Your task to perform on an android device: add a label to a message in the gmail app Image 0: 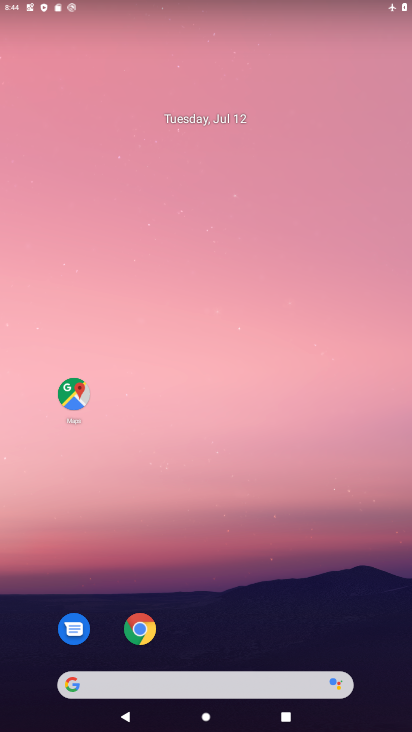
Step 0: drag from (293, 622) to (255, 284)
Your task to perform on an android device: add a label to a message in the gmail app Image 1: 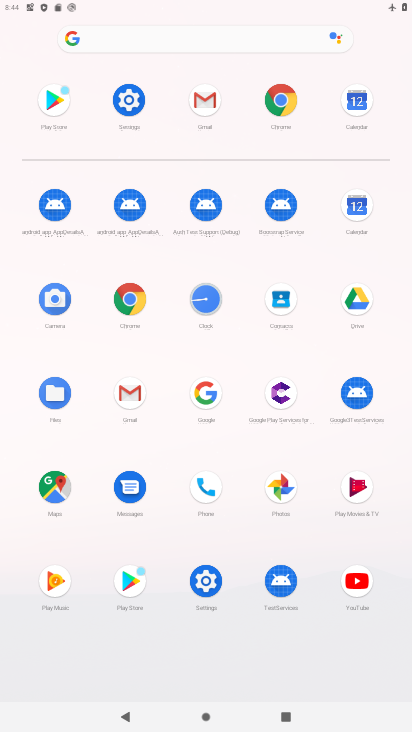
Step 1: click (205, 95)
Your task to perform on an android device: add a label to a message in the gmail app Image 2: 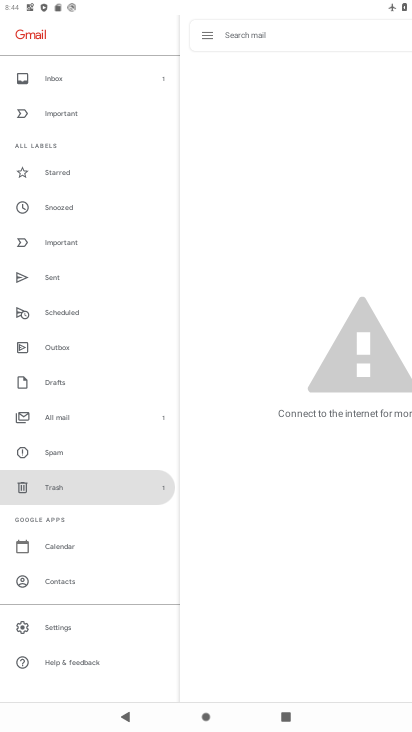
Step 2: click (73, 421)
Your task to perform on an android device: add a label to a message in the gmail app Image 3: 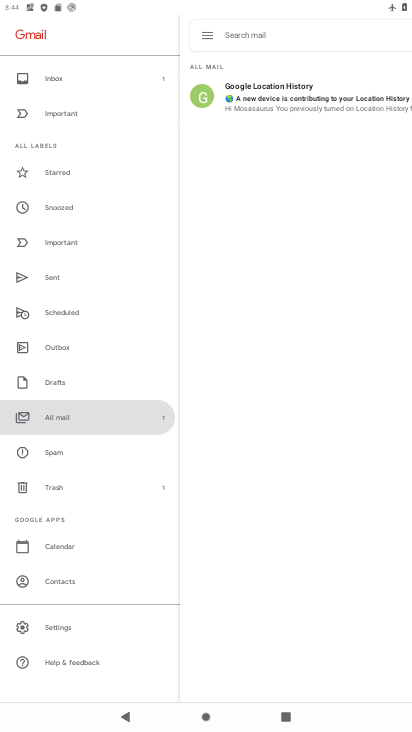
Step 3: click (269, 88)
Your task to perform on an android device: add a label to a message in the gmail app Image 4: 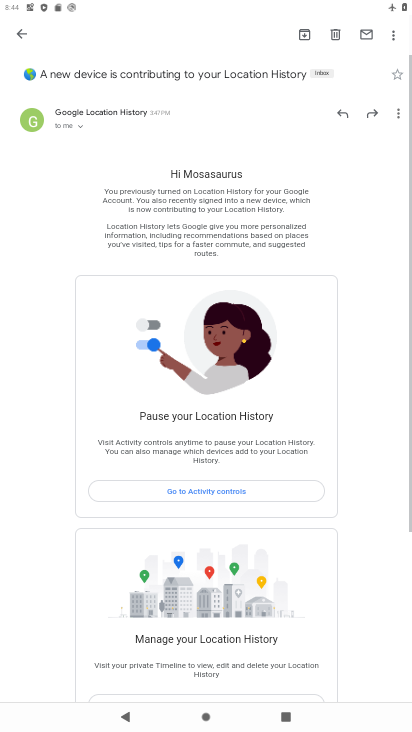
Step 4: click (22, 20)
Your task to perform on an android device: add a label to a message in the gmail app Image 5: 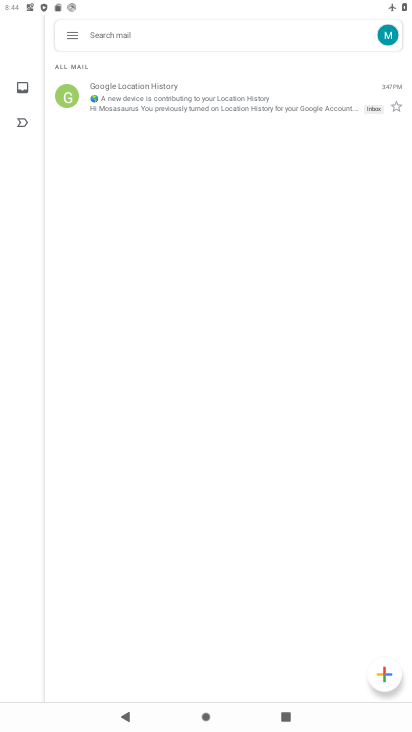
Step 5: click (199, 104)
Your task to perform on an android device: add a label to a message in the gmail app Image 6: 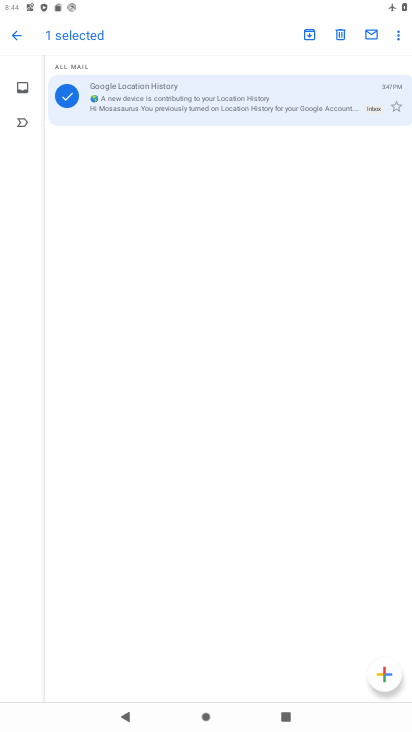
Step 6: click (392, 35)
Your task to perform on an android device: add a label to a message in the gmail app Image 7: 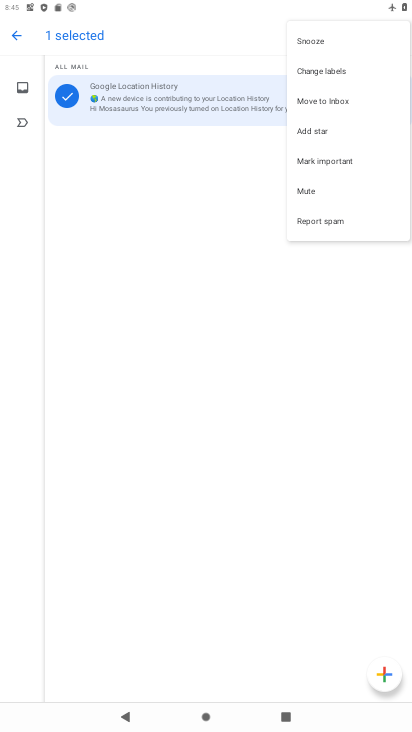
Step 7: click (331, 66)
Your task to perform on an android device: add a label to a message in the gmail app Image 8: 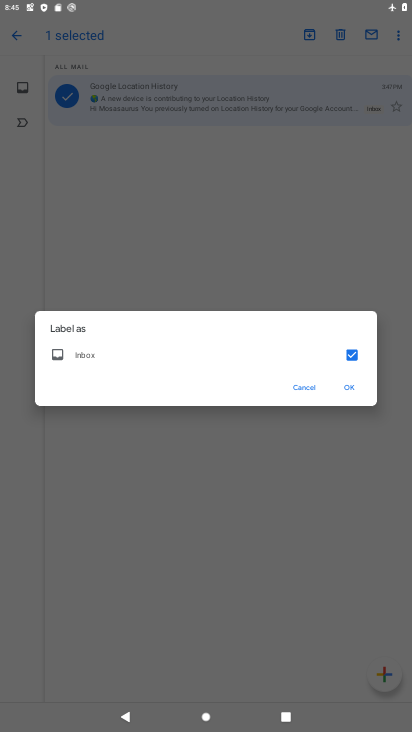
Step 8: click (361, 385)
Your task to perform on an android device: add a label to a message in the gmail app Image 9: 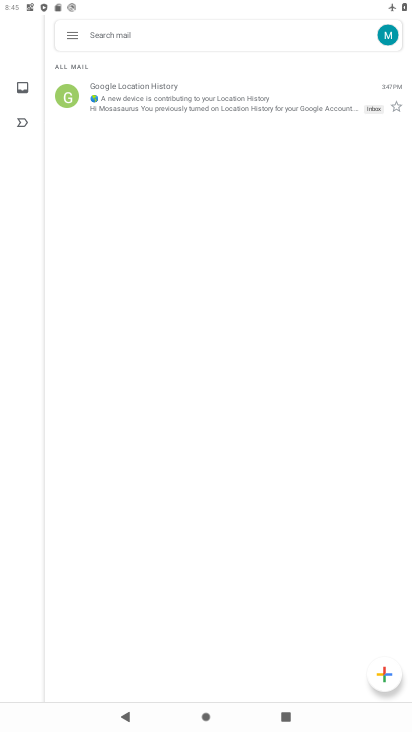
Step 9: task complete